Your task to perform on an android device: stop showing notifications on the lock screen Image 0: 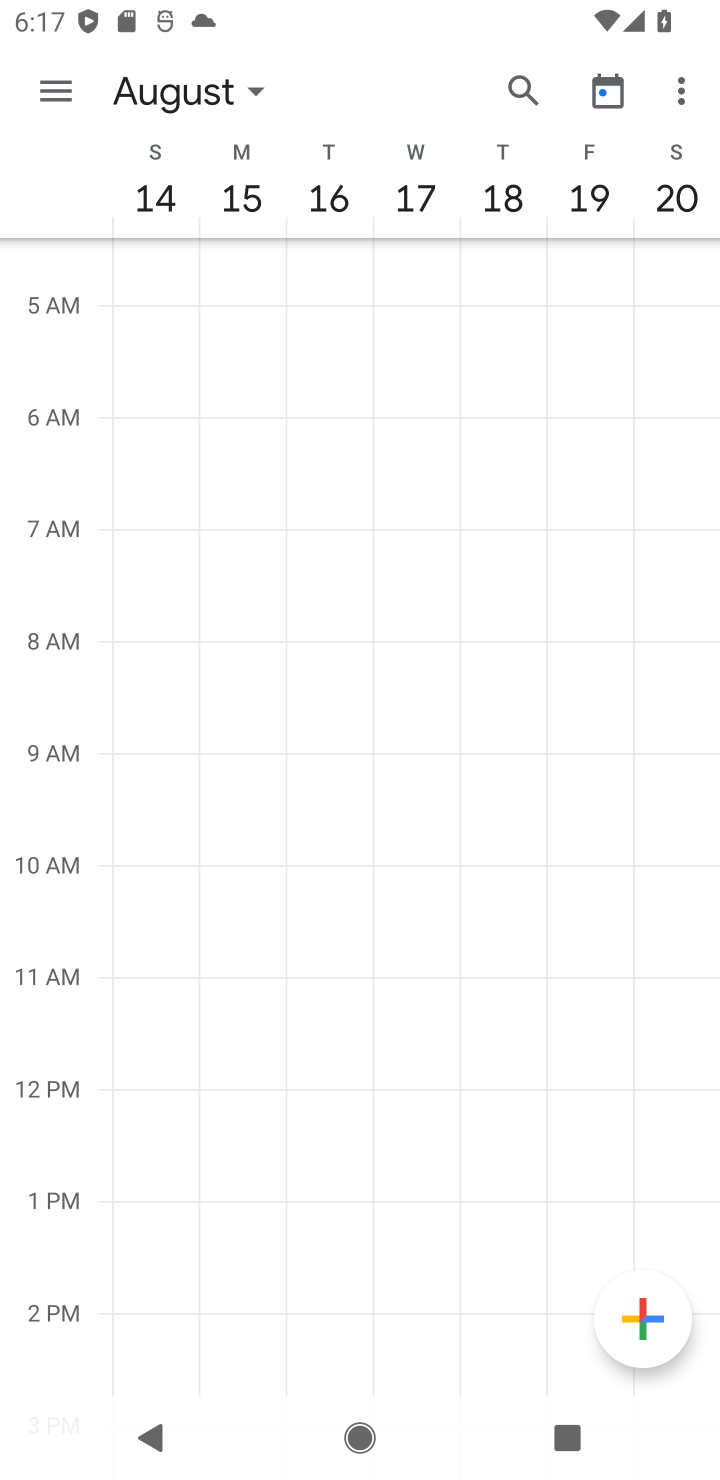
Step 0: press home button
Your task to perform on an android device: stop showing notifications on the lock screen Image 1: 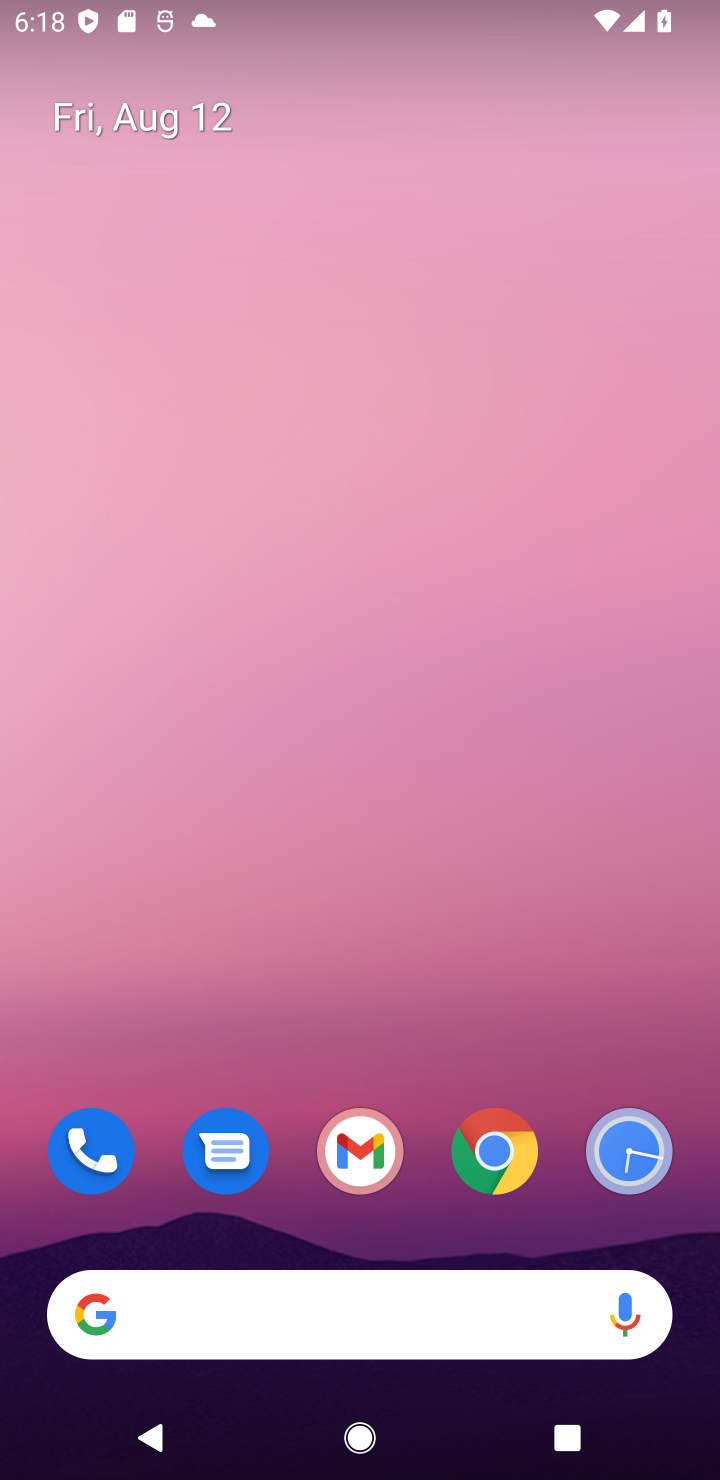
Step 1: drag from (459, 1028) to (418, 66)
Your task to perform on an android device: stop showing notifications on the lock screen Image 2: 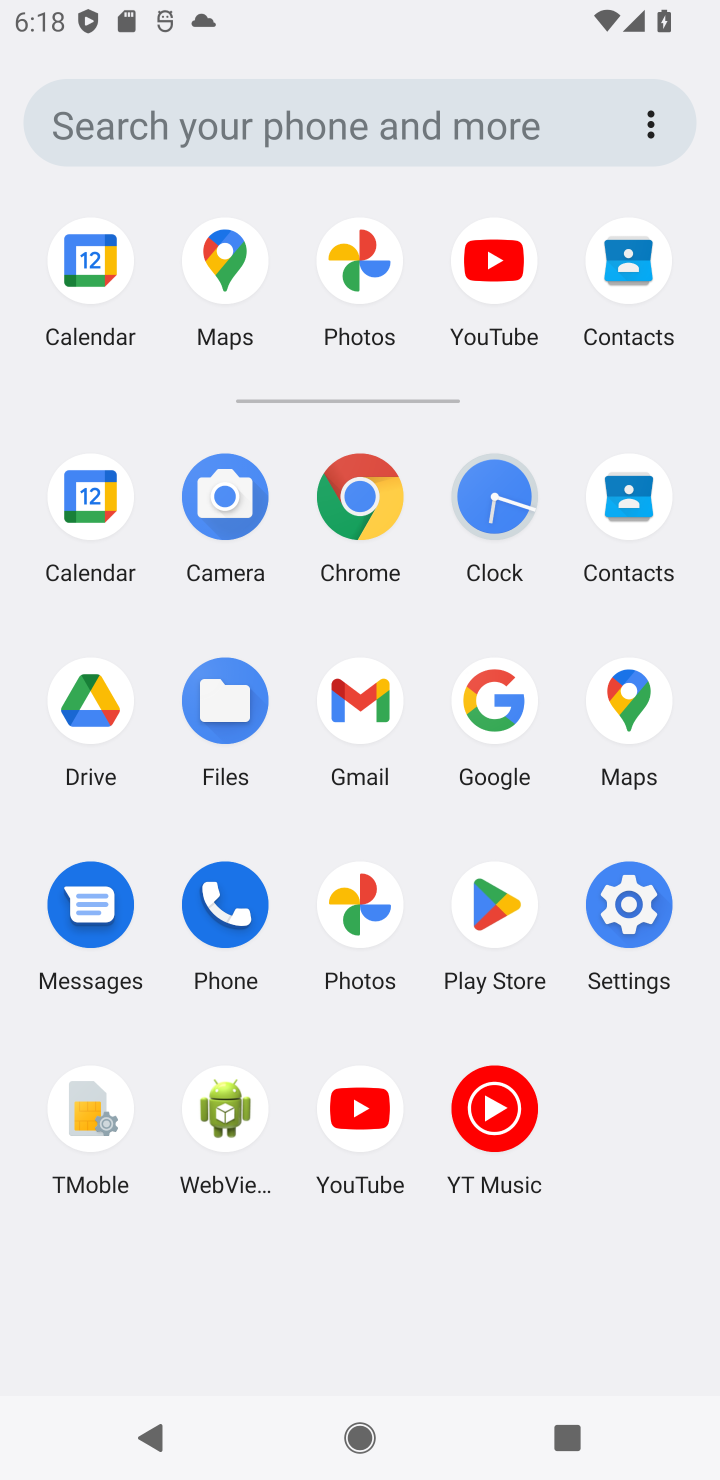
Step 2: click (636, 916)
Your task to perform on an android device: stop showing notifications on the lock screen Image 3: 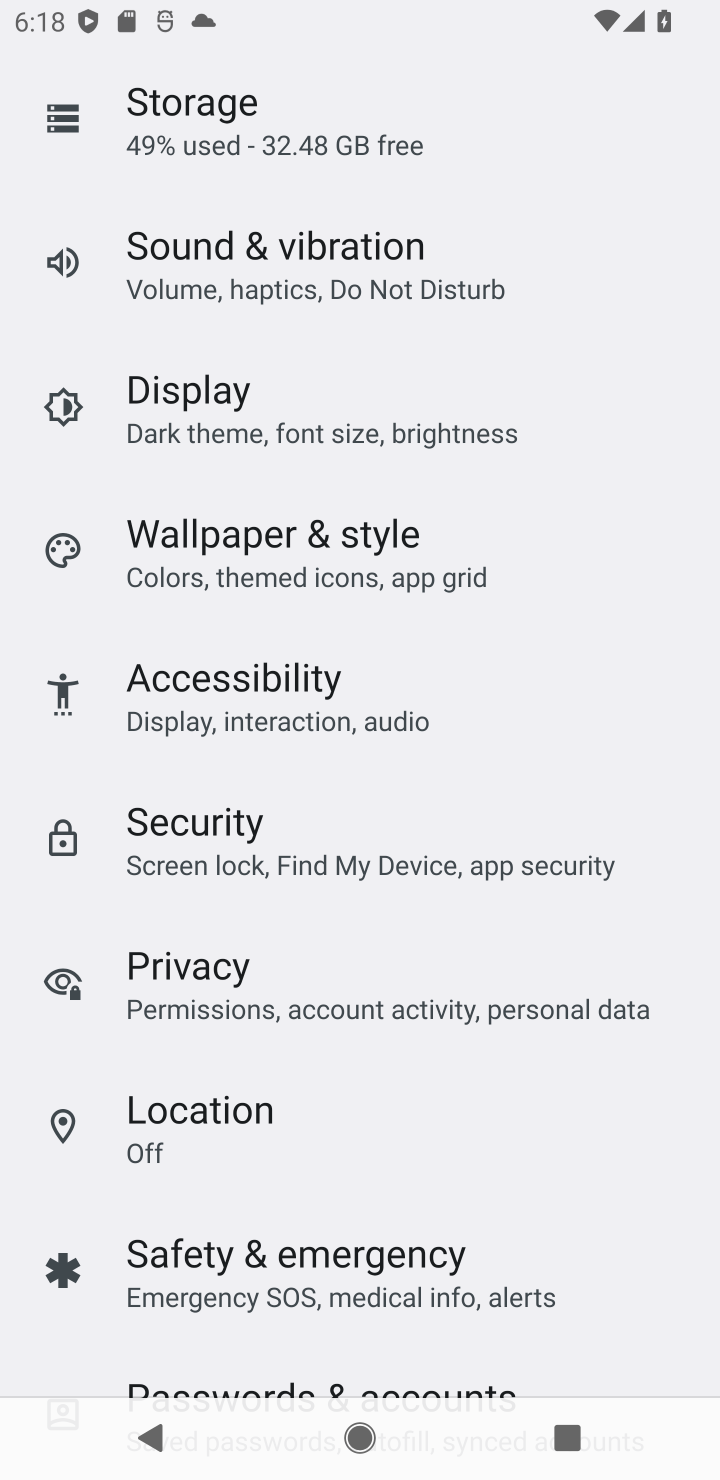
Step 3: drag from (522, 332) to (416, 1127)
Your task to perform on an android device: stop showing notifications on the lock screen Image 4: 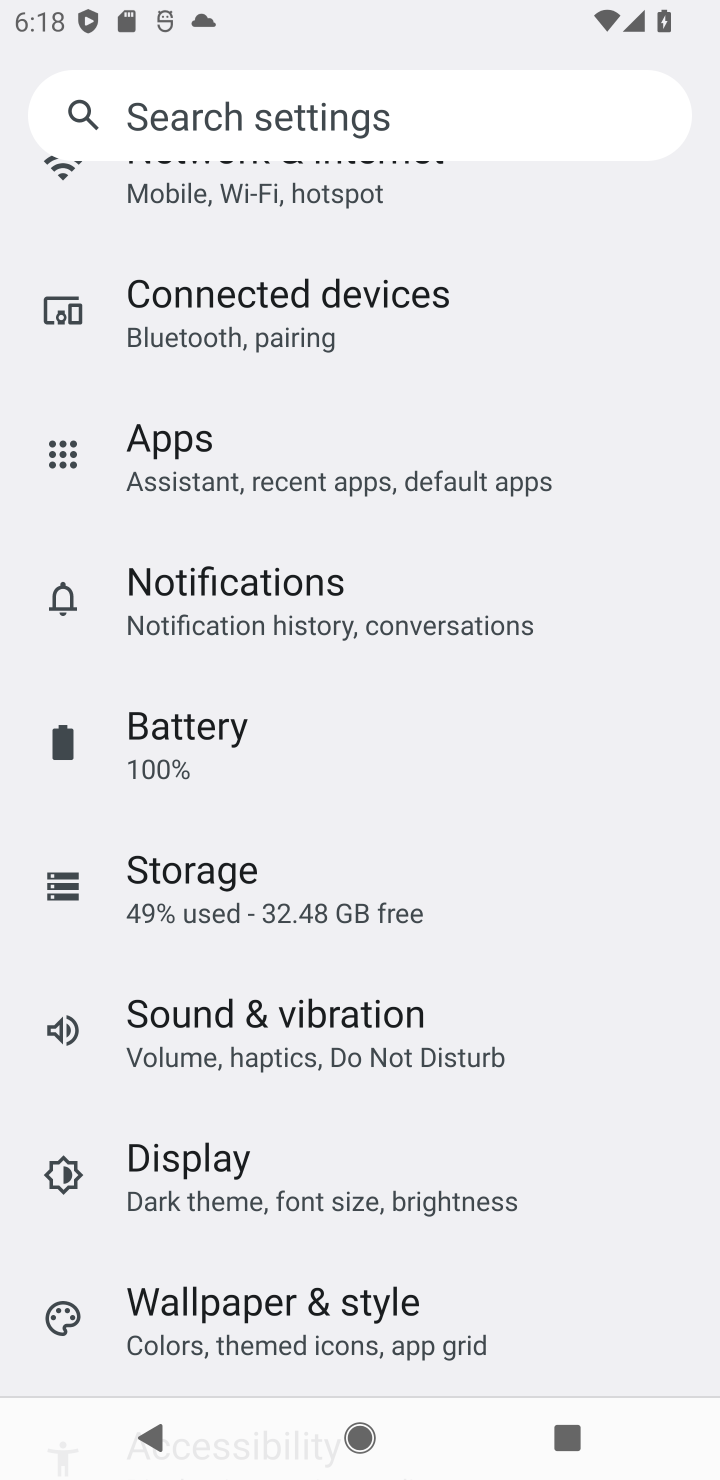
Step 4: click (420, 639)
Your task to perform on an android device: stop showing notifications on the lock screen Image 5: 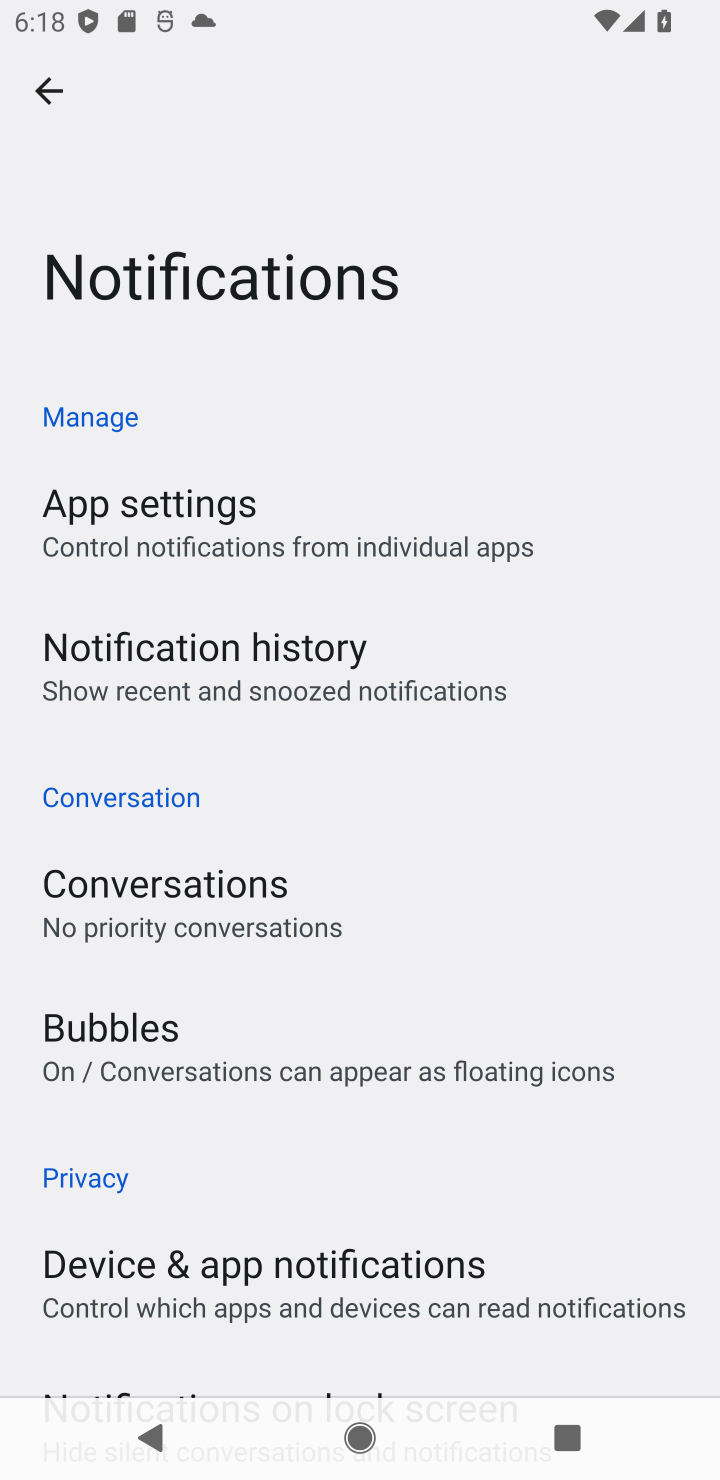
Step 5: drag from (540, 1085) to (594, 468)
Your task to perform on an android device: stop showing notifications on the lock screen Image 6: 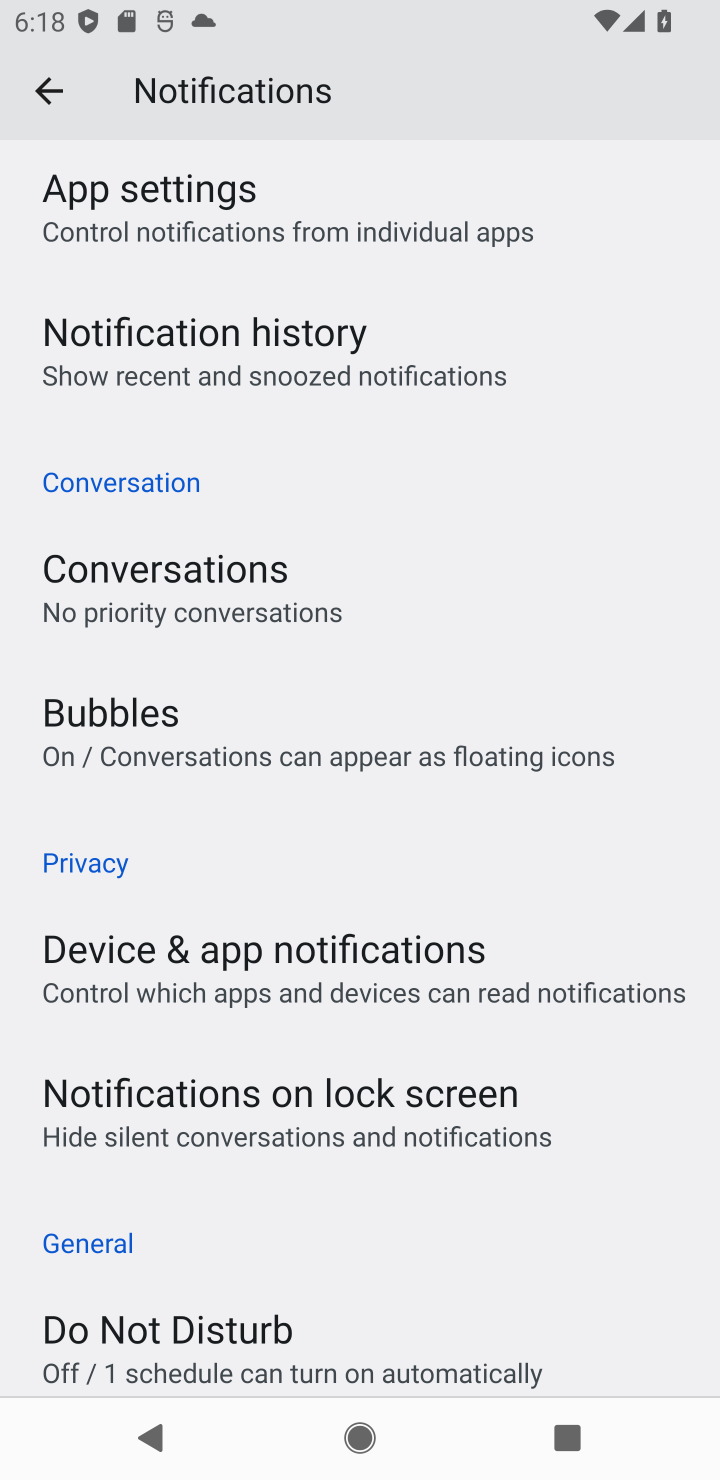
Step 6: click (402, 1154)
Your task to perform on an android device: stop showing notifications on the lock screen Image 7: 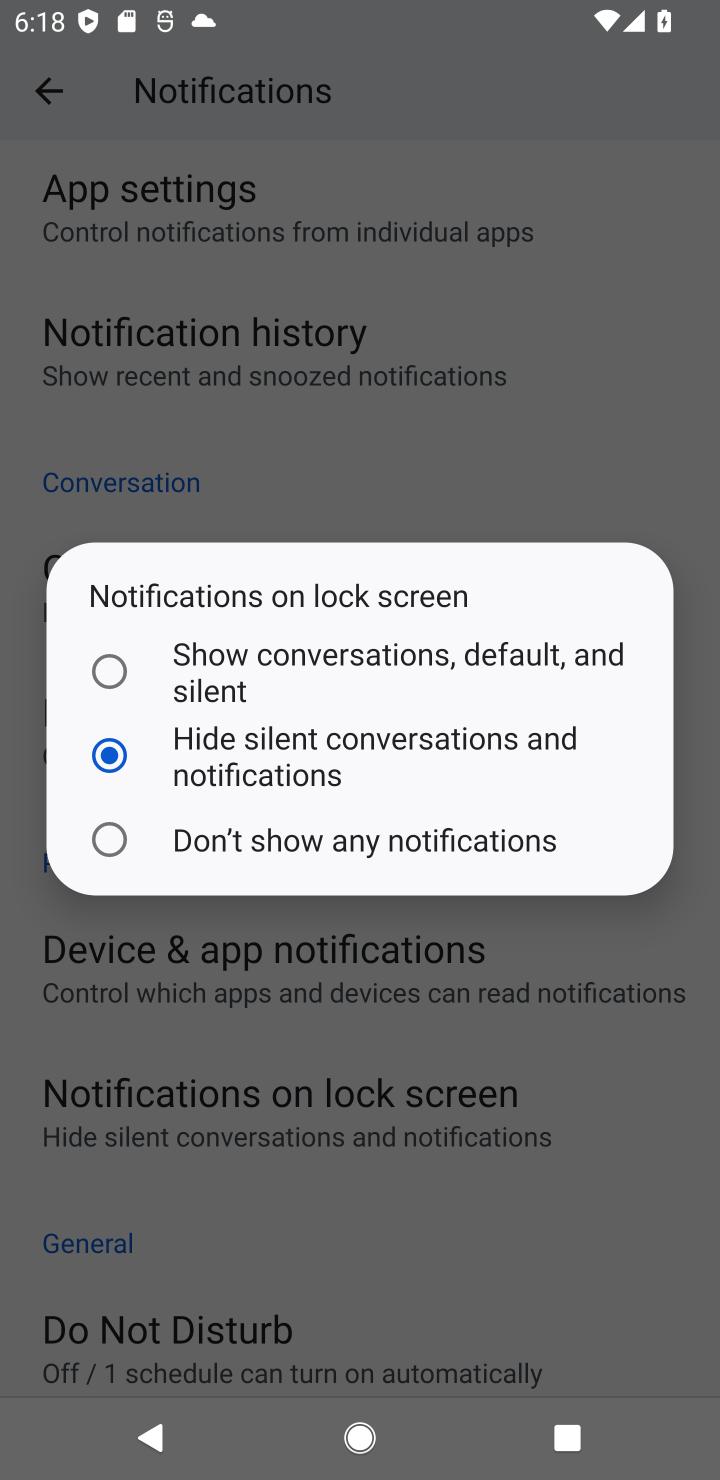
Step 7: click (359, 825)
Your task to perform on an android device: stop showing notifications on the lock screen Image 8: 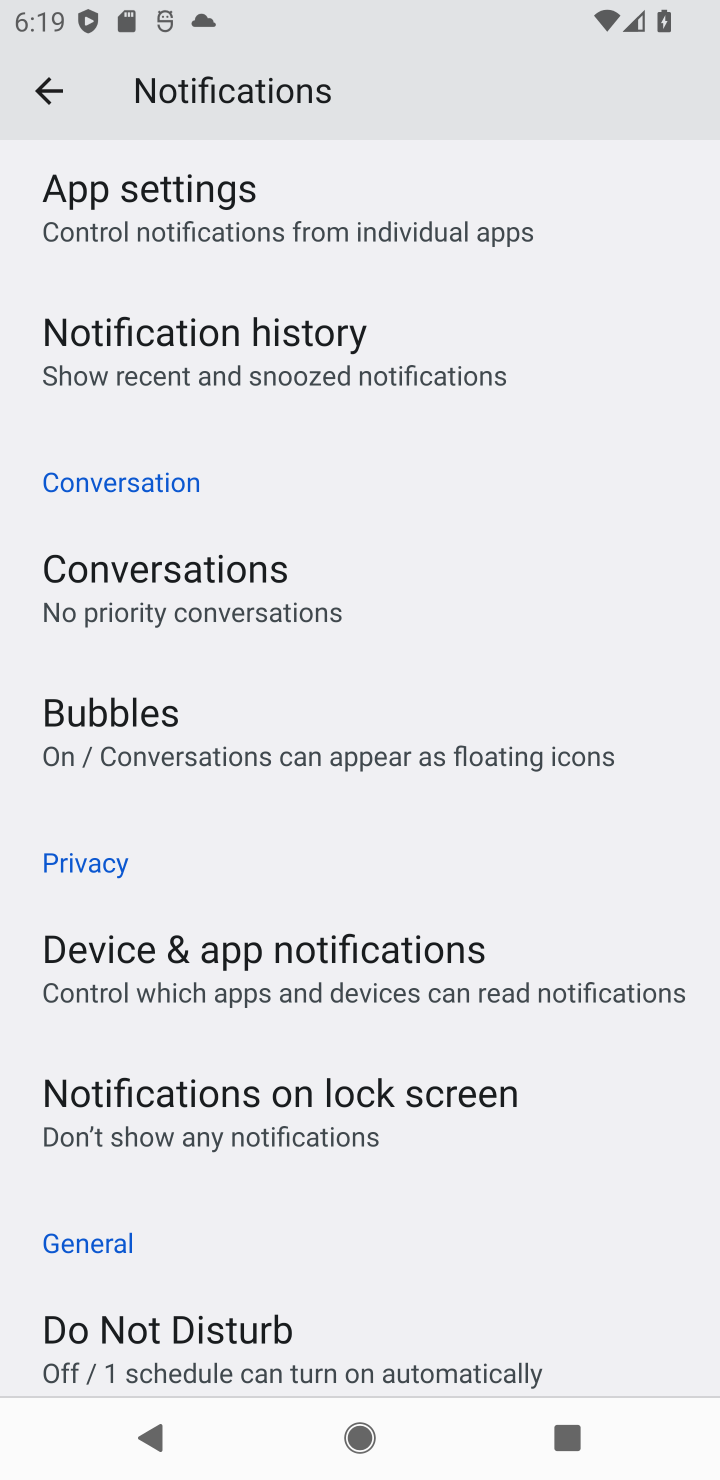
Step 8: task complete